Your task to perform on an android device: clear history in the chrome app Image 0: 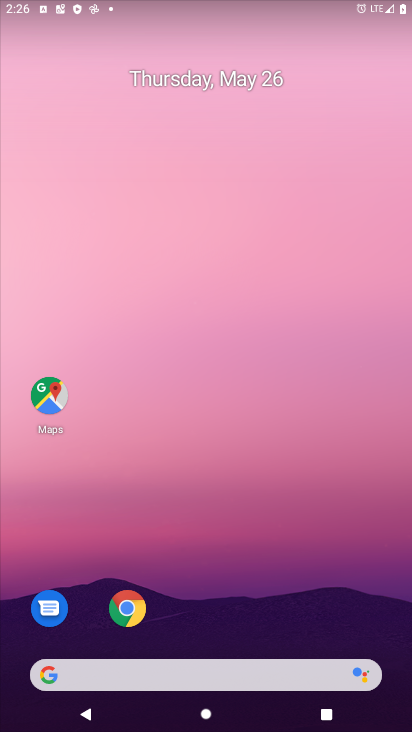
Step 0: click (364, 625)
Your task to perform on an android device: clear history in the chrome app Image 1: 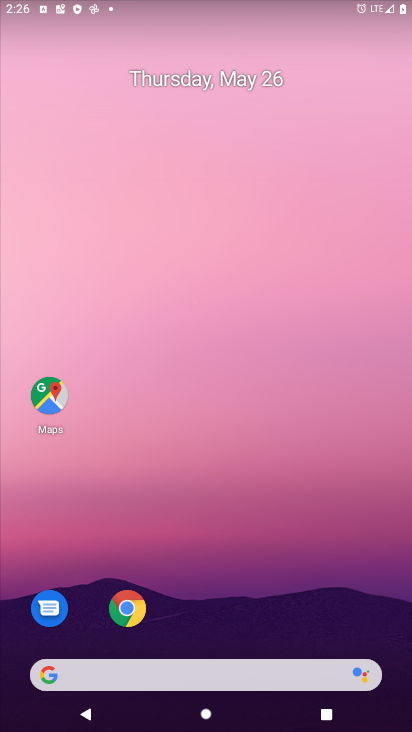
Step 1: click (128, 612)
Your task to perform on an android device: clear history in the chrome app Image 2: 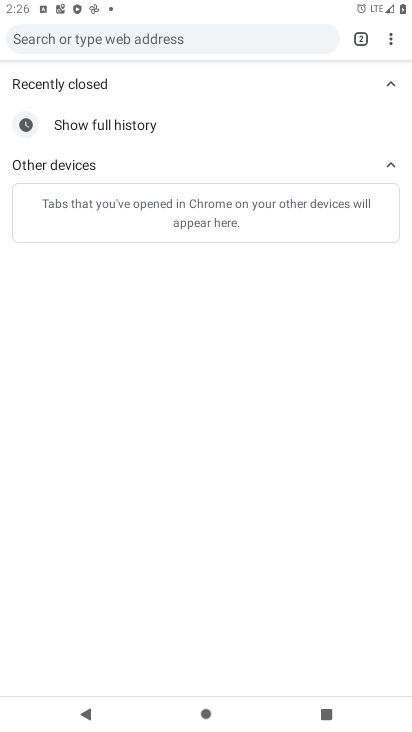
Step 2: click (391, 40)
Your task to perform on an android device: clear history in the chrome app Image 3: 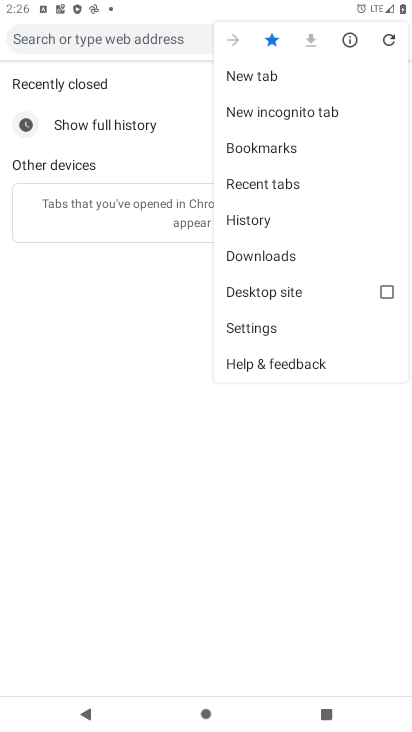
Step 3: click (251, 215)
Your task to perform on an android device: clear history in the chrome app Image 4: 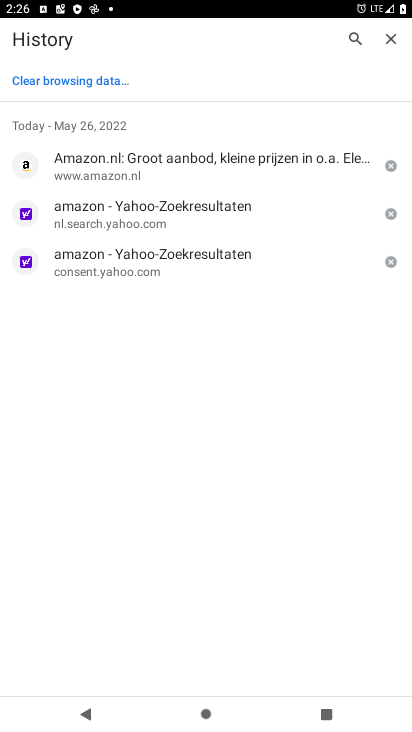
Step 4: click (76, 85)
Your task to perform on an android device: clear history in the chrome app Image 5: 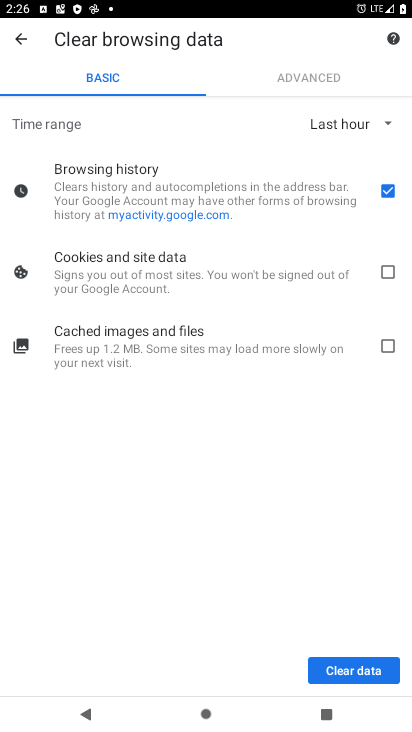
Step 5: click (351, 668)
Your task to perform on an android device: clear history in the chrome app Image 6: 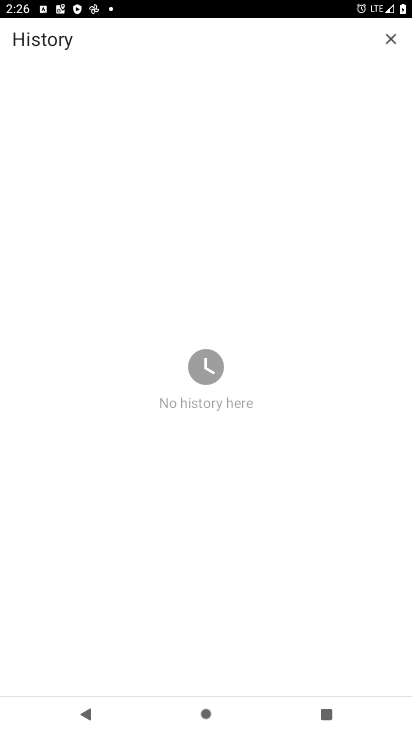
Step 6: task complete